Your task to perform on an android device: Go to internet settings Image 0: 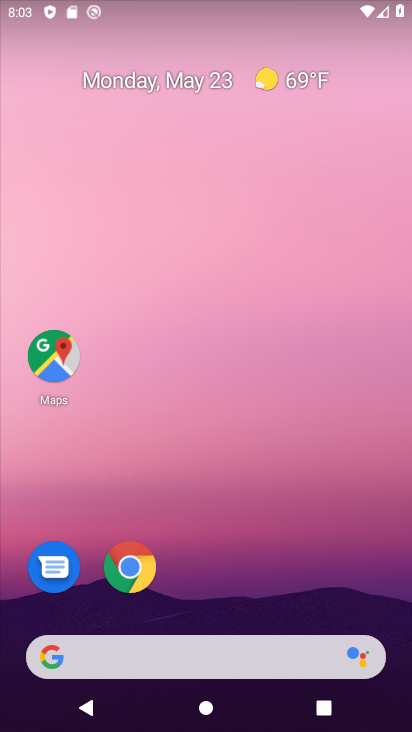
Step 0: drag from (220, 619) to (174, 4)
Your task to perform on an android device: Go to internet settings Image 1: 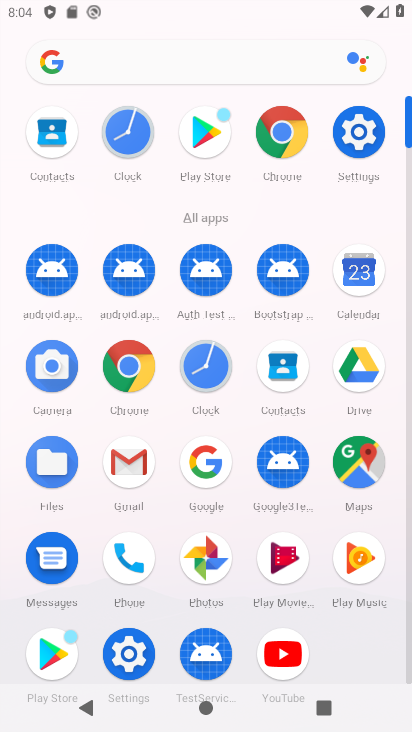
Step 1: click (372, 144)
Your task to perform on an android device: Go to internet settings Image 2: 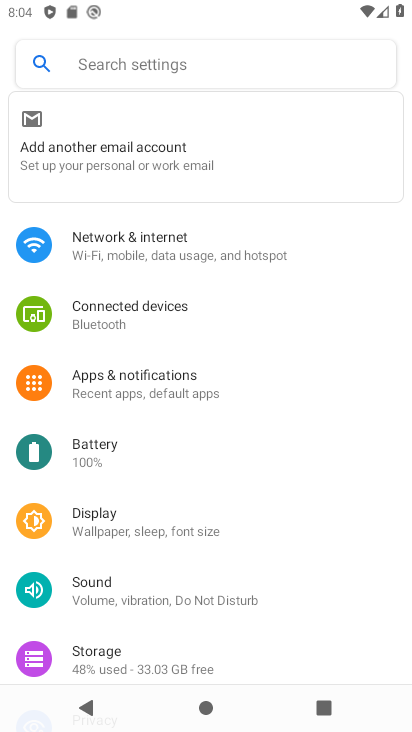
Step 2: click (202, 262)
Your task to perform on an android device: Go to internet settings Image 3: 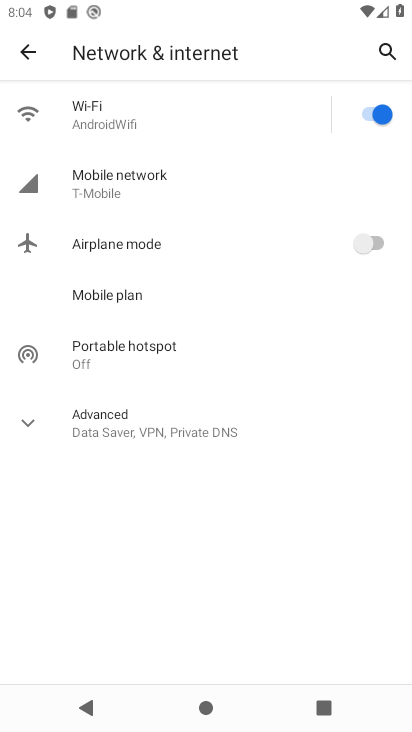
Step 3: task complete